Your task to perform on an android device: empty trash in google photos Image 0: 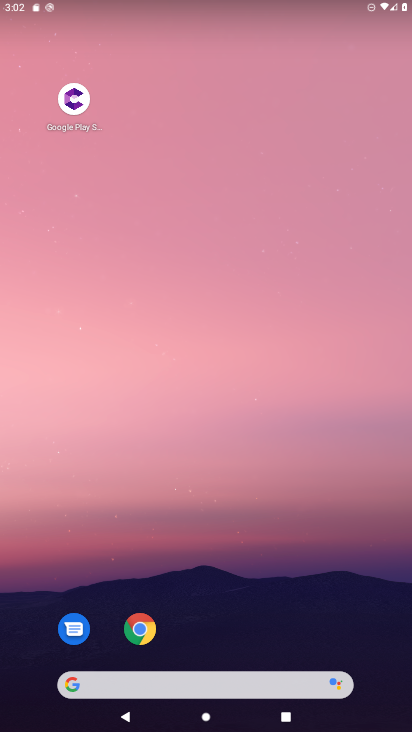
Step 0: drag from (286, 622) to (222, 127)
Your task to perform on an android device: empty trash in google photos Image 1: 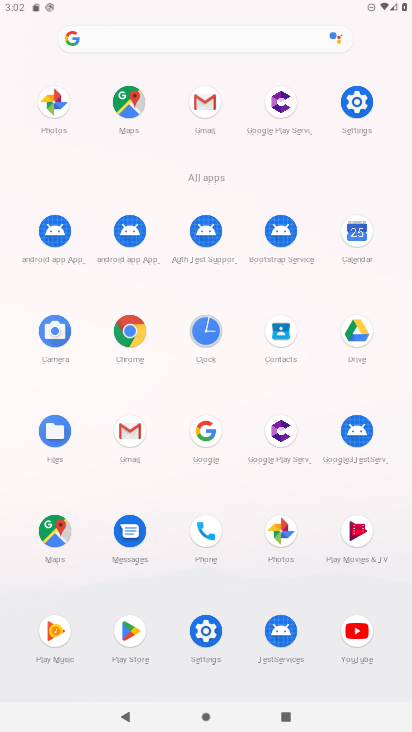
Step 1: click (281, 524)
Your task to perform on an android device: empty trash in google photos Image 2: 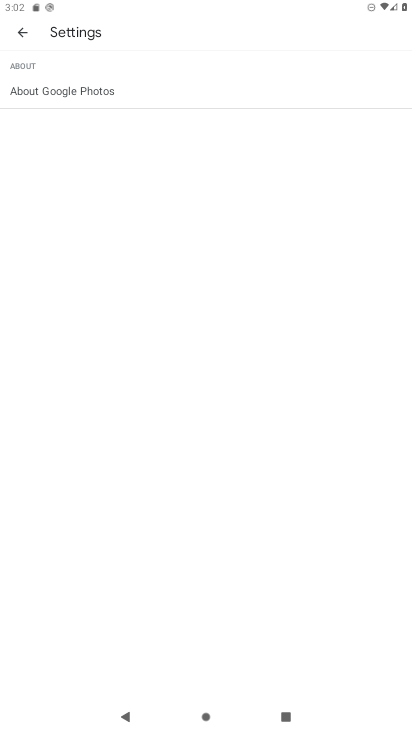
Step 2: click (26, 31)
Your task to perform on an android device: empty trash in google photos Image 3: 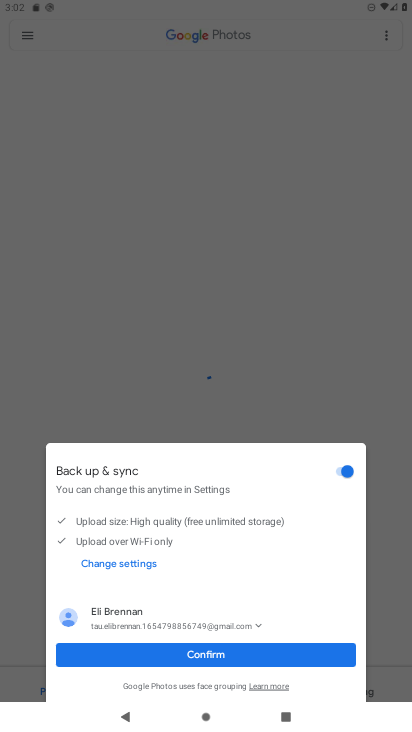
Step 3: click (165, 651)
Your task to perform on an android device: empty trash in google photos Image 4: 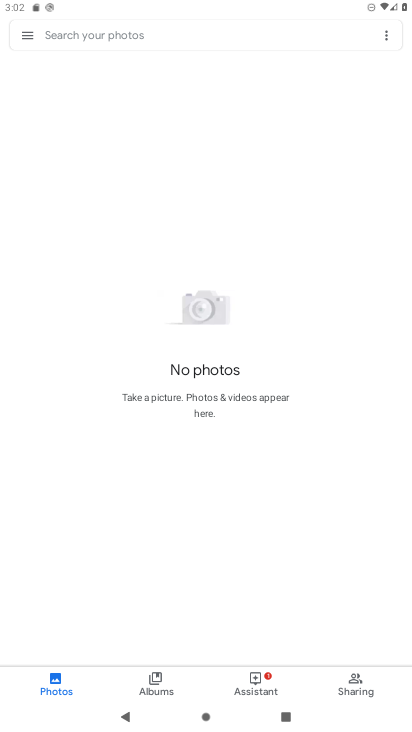
Step 4: click (29, 40)
Your task to perform on an android device: empty trash in google photos Image 5: 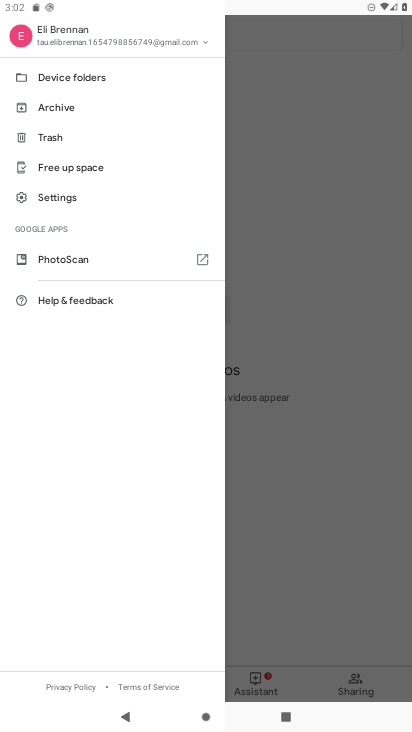
Step 5: click (56, 135)
Your task to perform on an android device: empty trash in google photos Image 6: 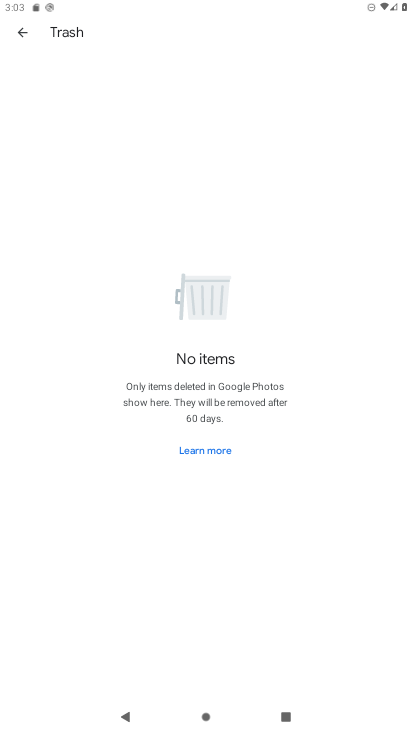
Step 6: task complete